Your task to perform on an android device: delete the emails in spam in the gmail app Image 0: 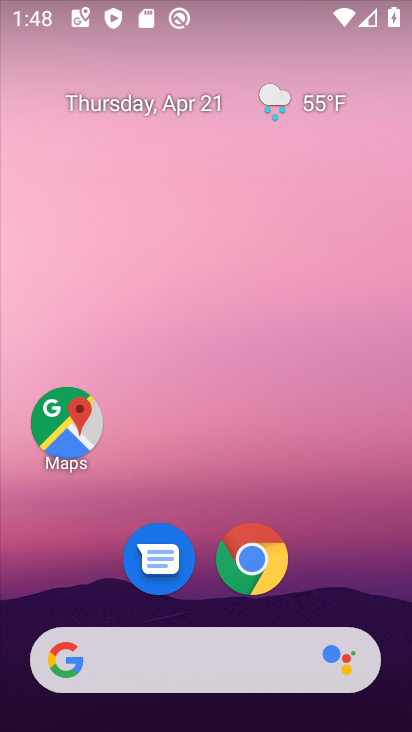
Step 0: drag from (209, 673) to (307, 209)
Your task to perform on an android device: delete the emails in spam in the gmail app Image 1: 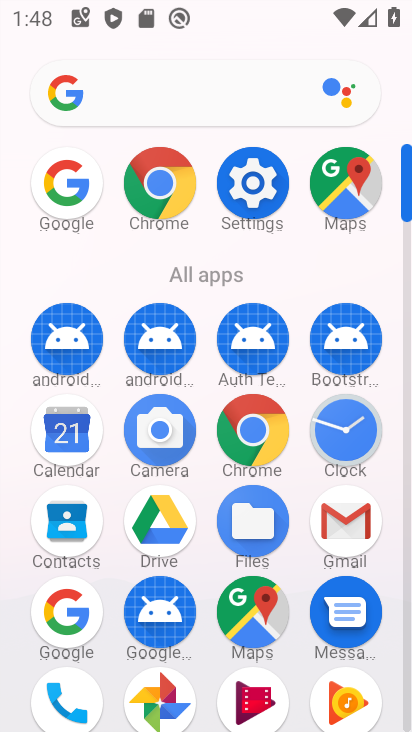
Step 1: click (253, 602)
Your task to perform on an android device: delete the emails in spam in the gmail app Image 2: 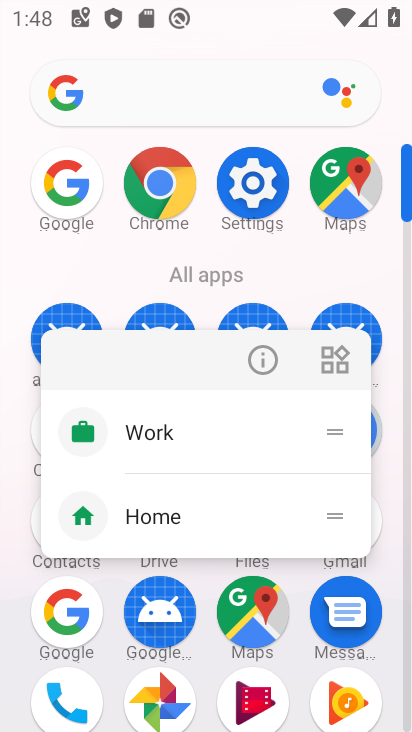
Step 2: click (253, 602)
Your task to perform on an android device: delete the emails in spam in the gmail app Image 3: 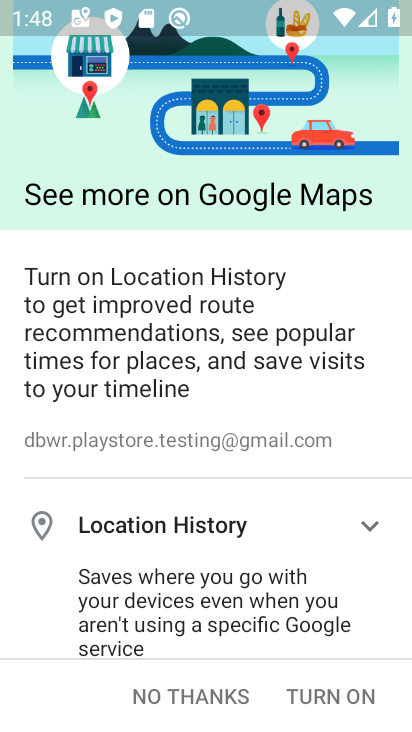
Step 3: click (303, 692)
Your task to perform on an android device: delete the emails in spam in the gmail app Image 4: 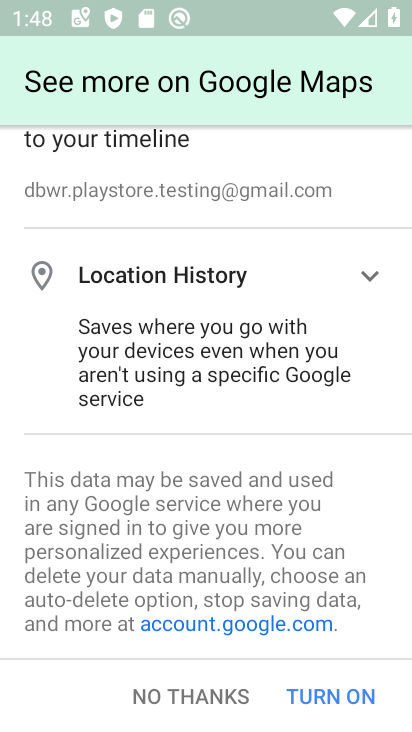
Step 4: task complete